Your task to perform on an android device: clear history in the chrome app Image 0: 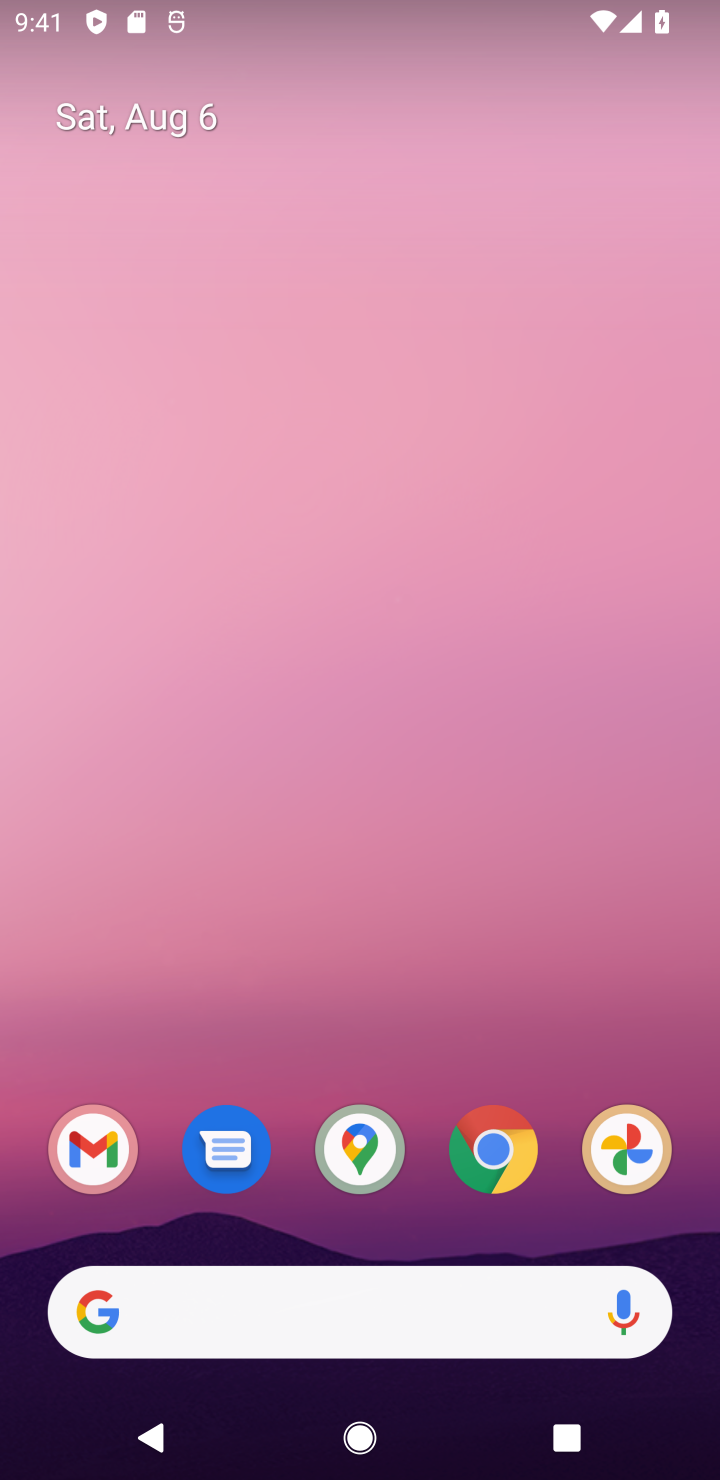
Step 0: click (594, 1189)
Your task to perform on an android device: clear history in the chrome app Image 1: 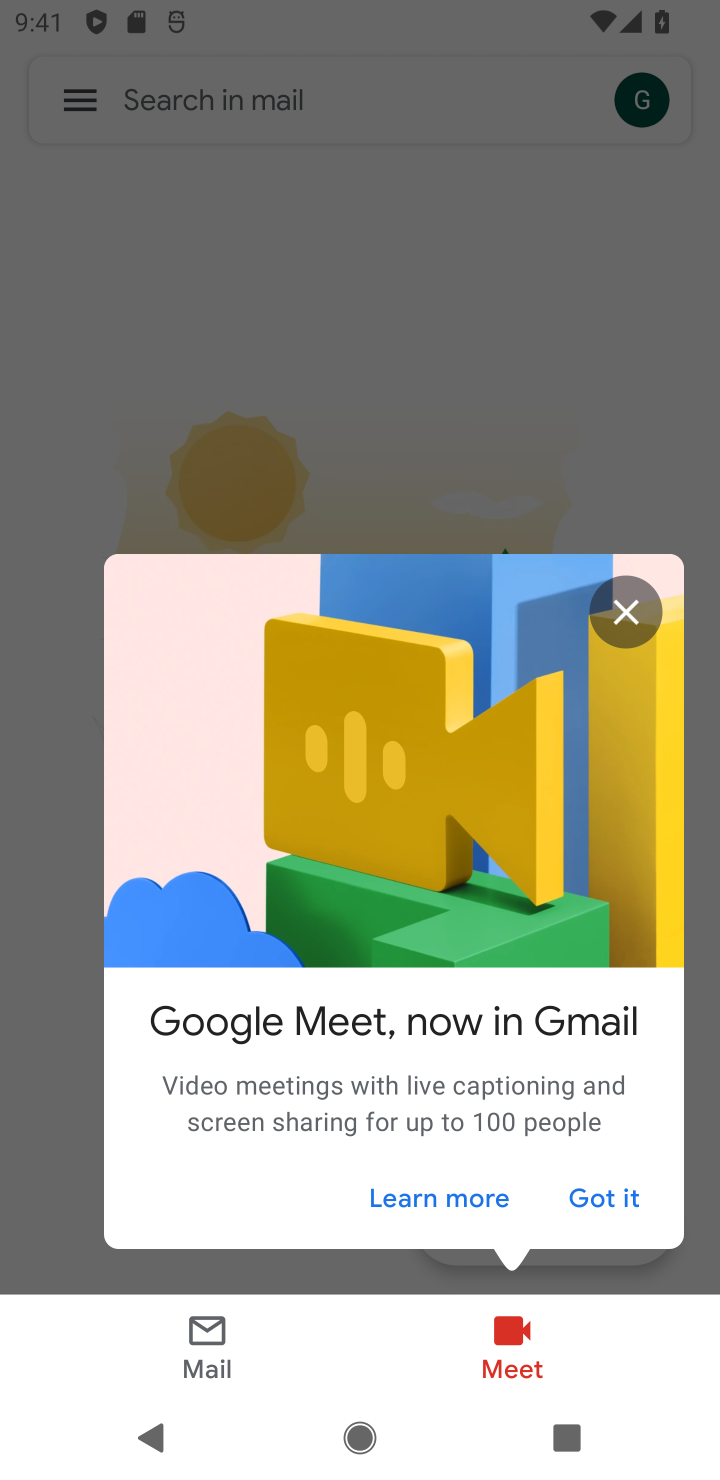
Step 1: click (603, 1200)
Your task to perform on an android device: clear history in the chrome app Image 2: 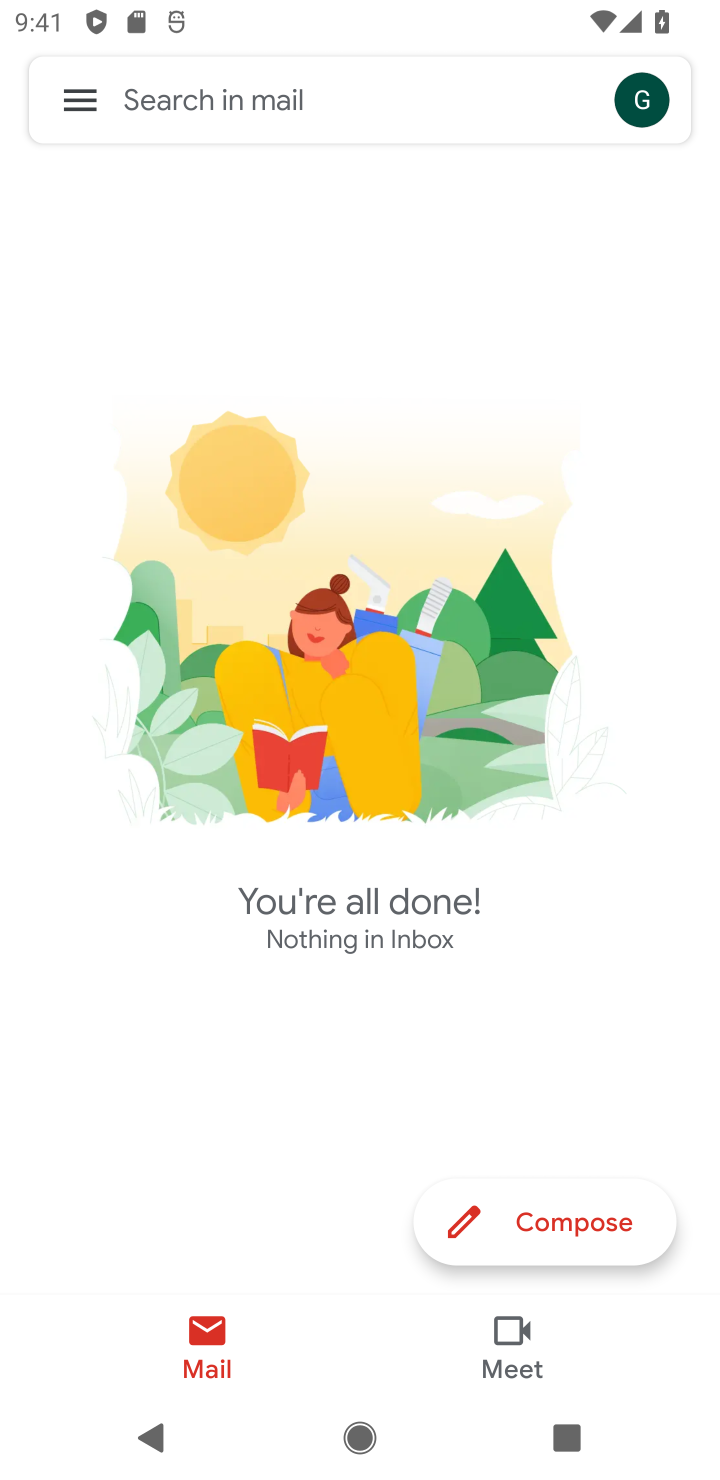
Step 2: task complete